Your task to perform on an android device: set the stopwatch Image 0: 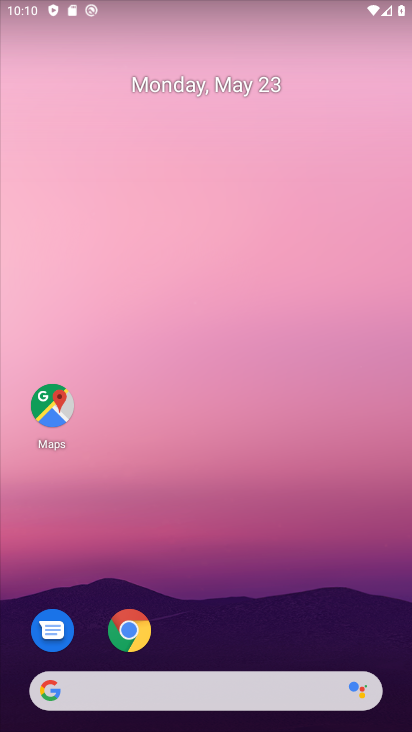
Step 0: drag from (302, 641) to (325, 7)
Your task to perform on an android device: set the stopwatch Image 1: 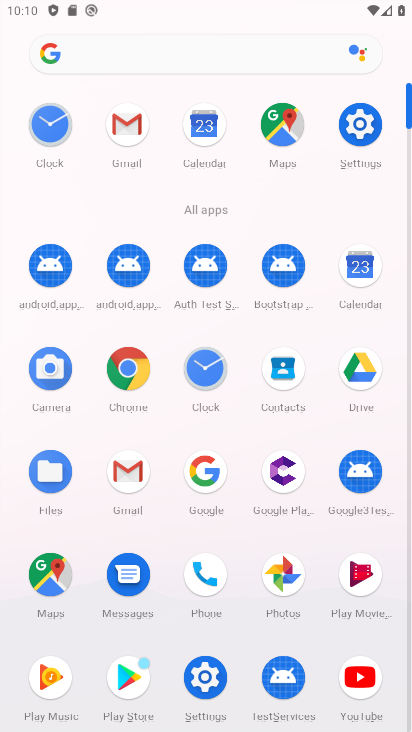
Step 1: click (208, 371)
Your task to perform on an android device: set the stopwatch Image 2: 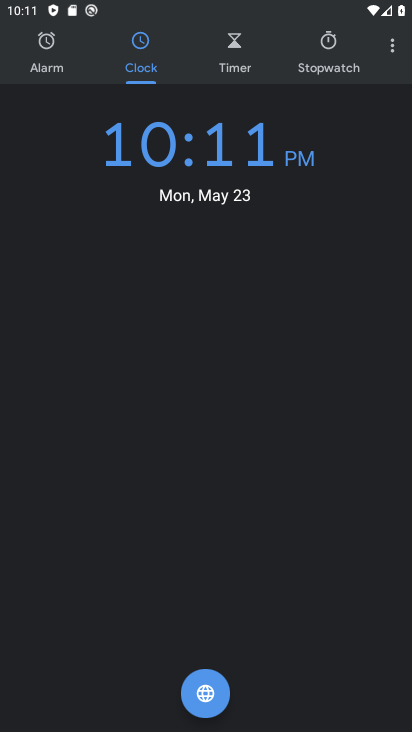
Step 2: click (321, 72)
Your task to perform on an android device: set the stopwatch Image 3: 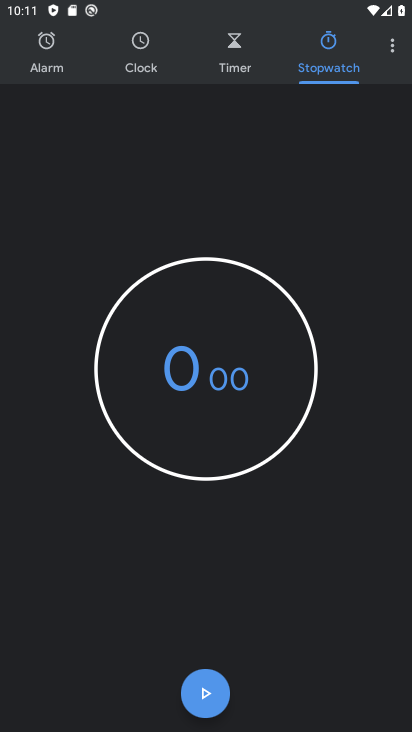
Step 3: click (197, 702)
Your task to perform on an android device: set the stopwatch Image 4: 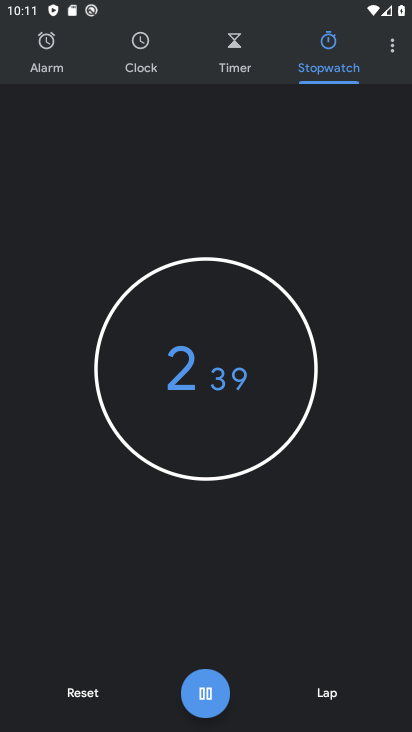
Step 4: click (208, 698)
Your task to perform on an android device: set the stopwatch Image 5: 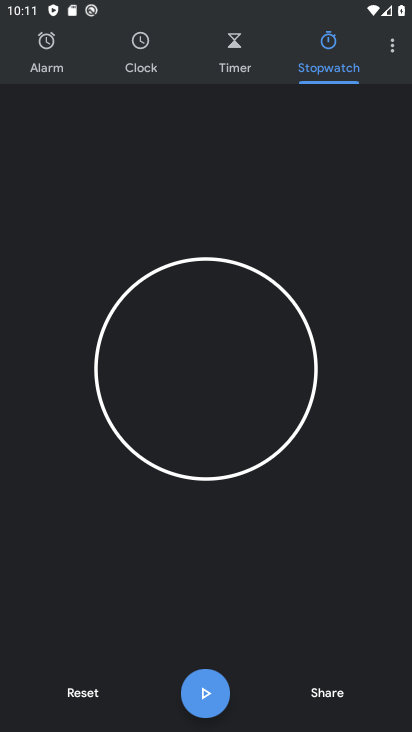
Step 5: task complete